Your task to perform on an android device: What's on my calendar tomorrow? Image 0: 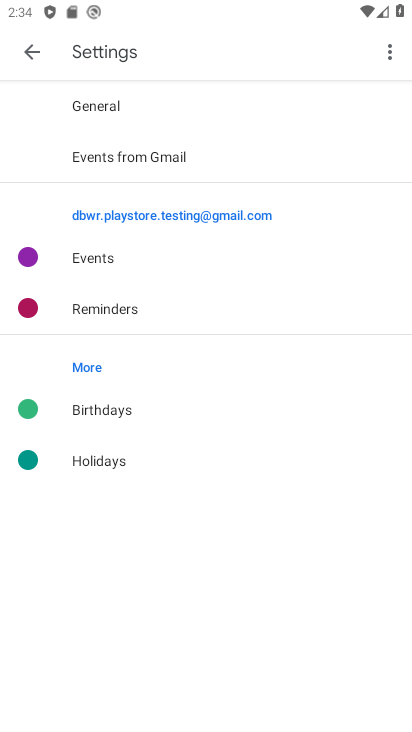
Step 0: press home button
Your task to perform on an android device: What's on my calendar tomorrow? Image 1: 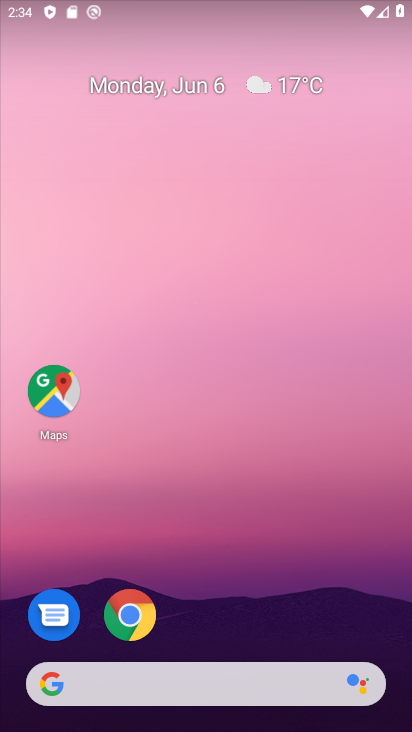
Step 1: drag from (260, 611) to (189, 171)
Your task to perform on an android device: What's on my calendar tomorrow? Image 2: 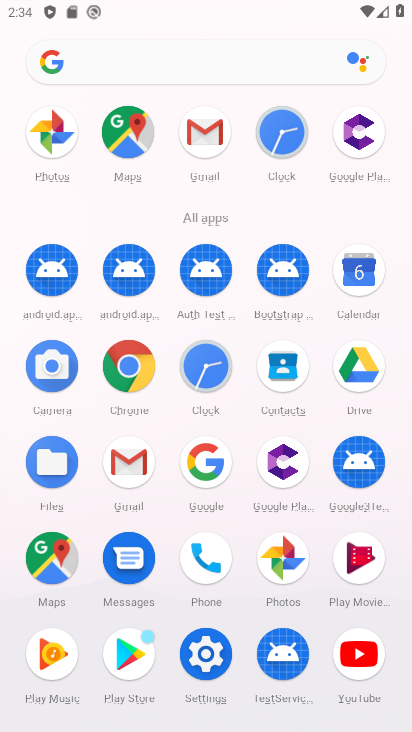
Step 2: click (369, 288)
Your task to perform on an android device: What's on my calendar tomorrow? Image 3: 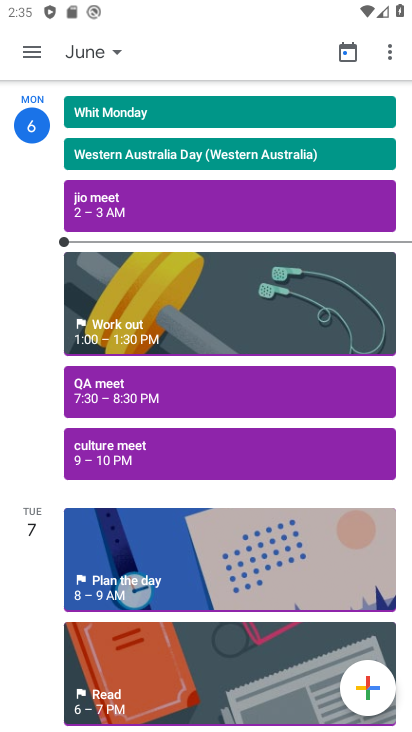
Step 3: task complete